Your task to perform on an android device: Go to Google maps Image 0: 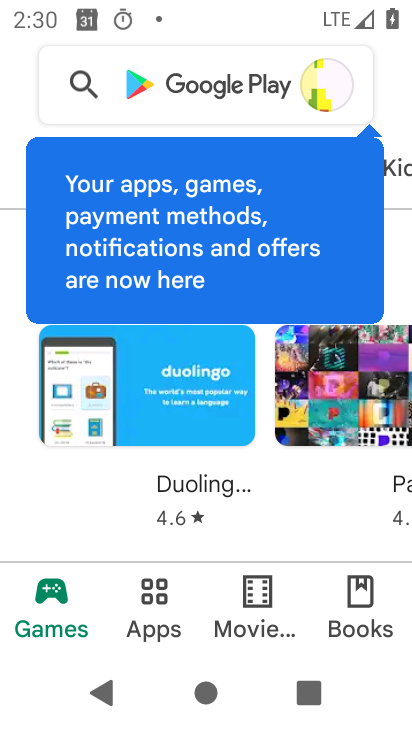
Step 0: press home button
Your task to perform on an android device: Go to Google maps Image 1: 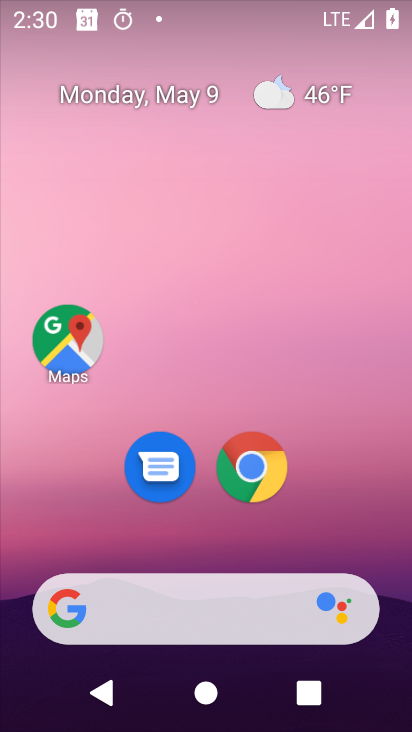
Step 1: drag from (342, 501) to (365, 82)
Your task to perform on an android device: Go to Google maps Image 2: 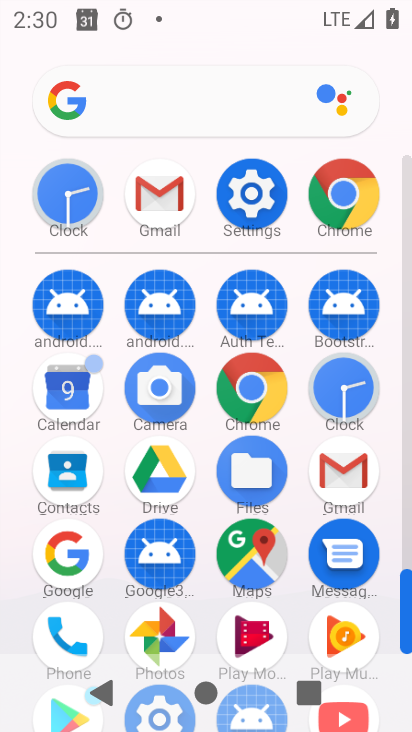
Step 2: click (268, 538)
Your task to perform on an android device: Go to Google maps Image 3: 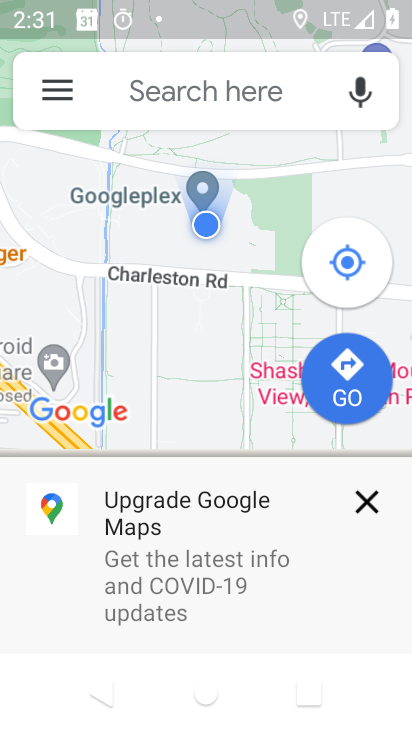
Step 3: task complete